Your task to perform on an android device: open device folders in google photos Image 0: 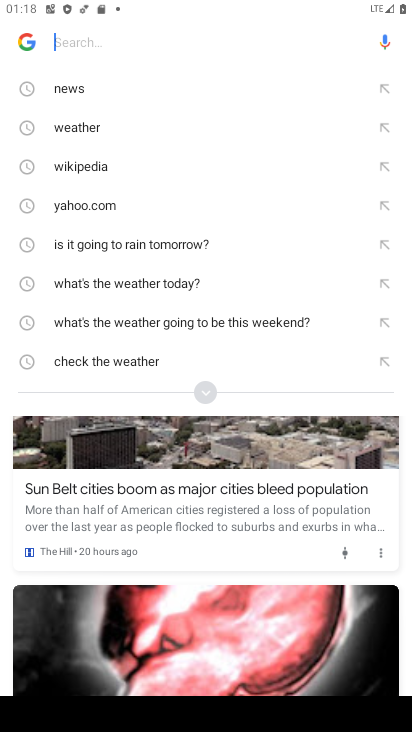
Step 0: press home button
Your task to perform on an android device: open device folders in google photos Image 1: 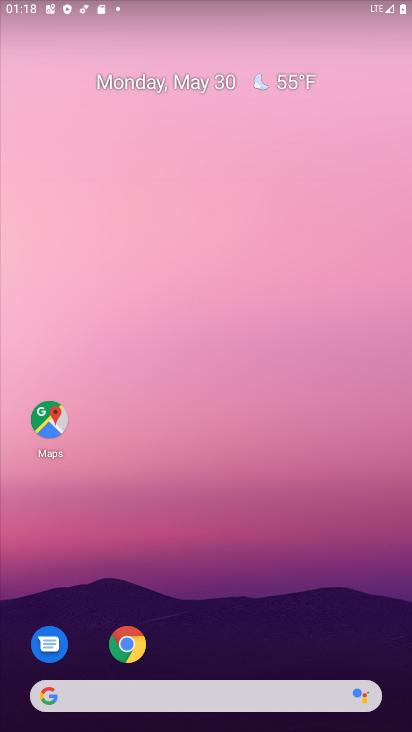
Step 1: drag from (330, 622) to (260, 136)
Your task to perform on an android device: open device folders in google photos Image 2: 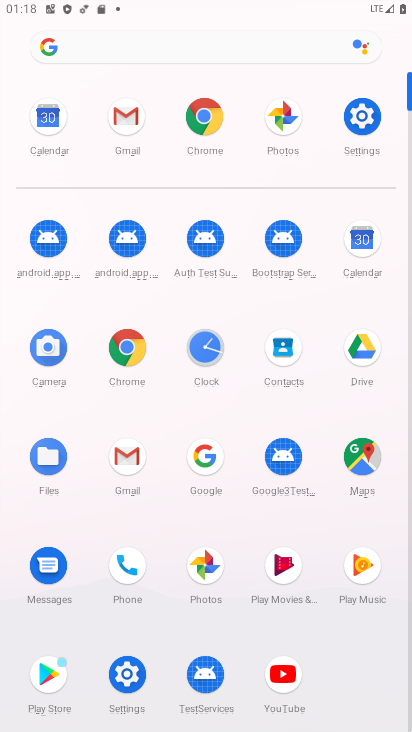
Step 2: click (208, 576)
Your task to perform on an android device: open device folders in google photos Image 3: 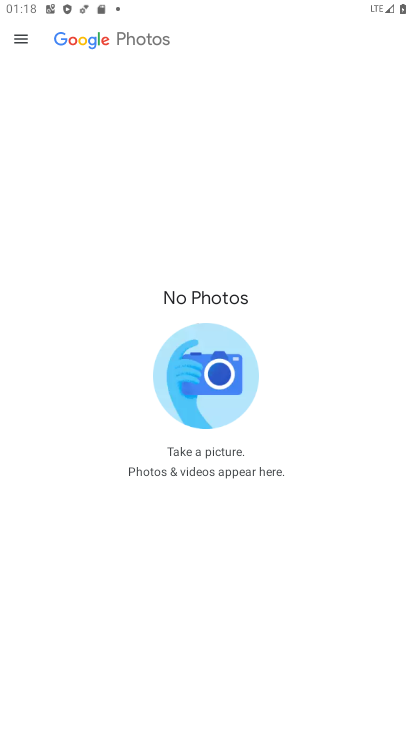
Step 3: click (28, 38)
Your task to perform on an android device: open device folders in google photos Image 4: 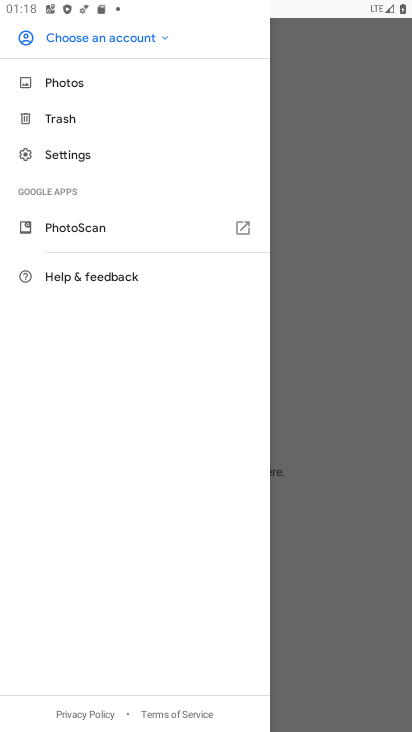
Step 4: task complete